Your task to perform on an android device: Open Google Image 0: 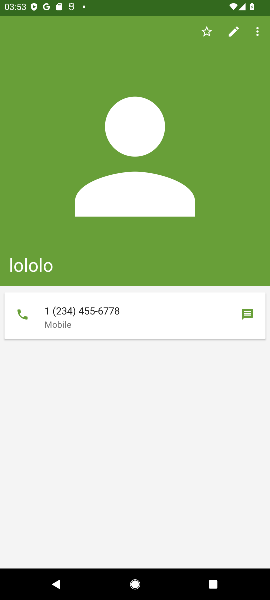
Step 0: press home button
Your task to perform on an android device: Open Google Image 1: 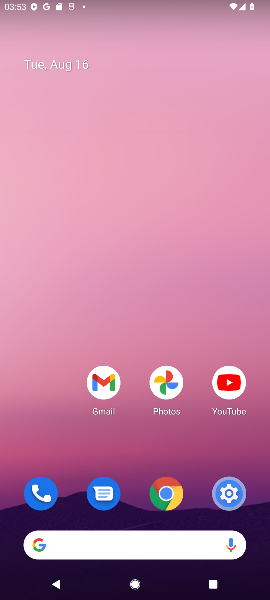
Step 1: drag from (68, 455) to (74, 140)
Your task to perform on an android device: Open Google Image 2: 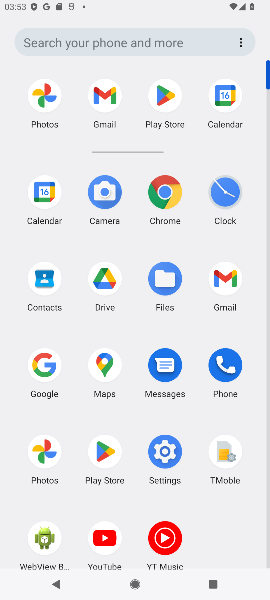
Step 2: click (37, 367)
Your task to perform on an android device: Open Google Image 3: 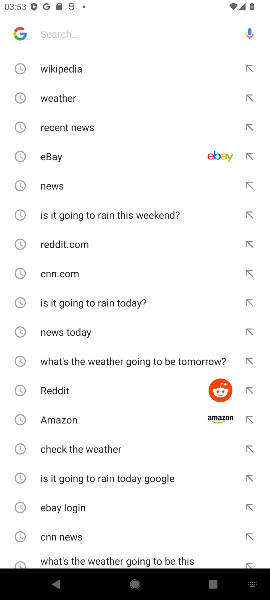
Step 3: task complete